Your task to perform on an android device: Go to Reddit.com Image 0: 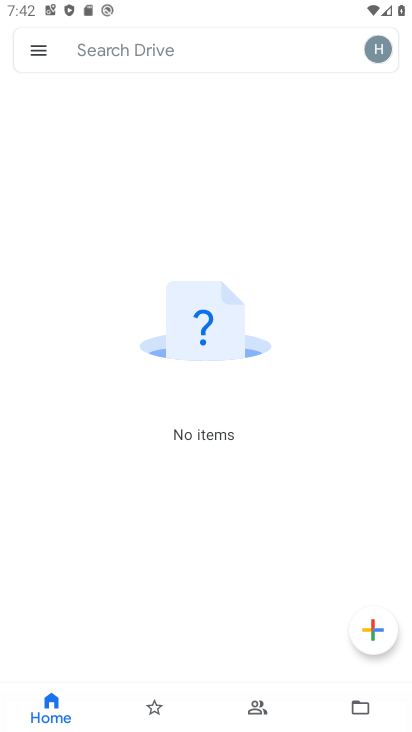
Step 0: press home button
Your task to perform on an android device: Go to Reddit.com Image 1: 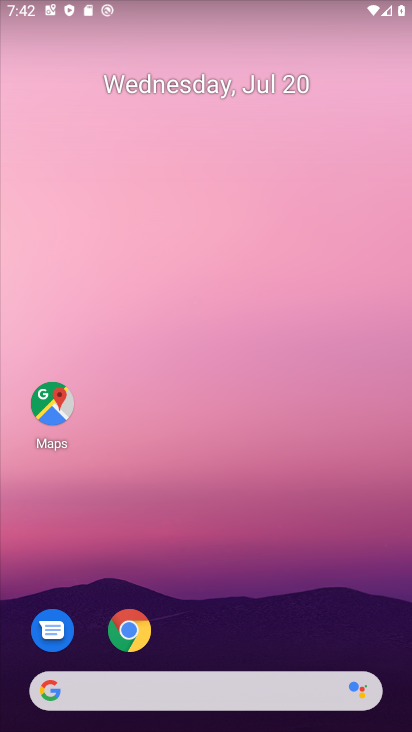
Step 1: drag from (266, 690) to (230, 253)
Your task to perform on an android device: Go to Reddit.com Image 2: 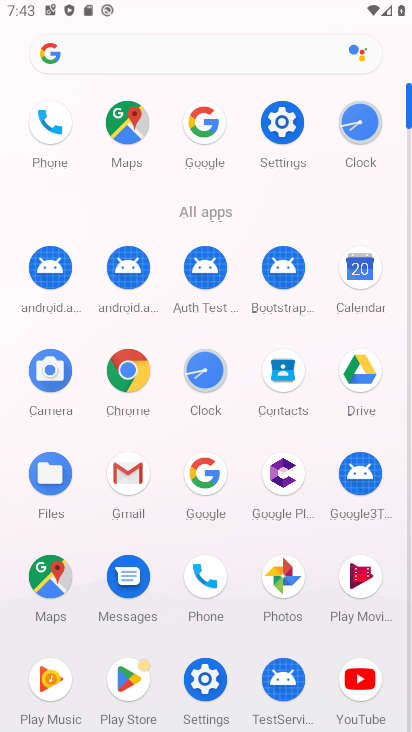
Step 2: click (139, 377)
Your task to perform on an android device: Go to Reddit.com Image 3: 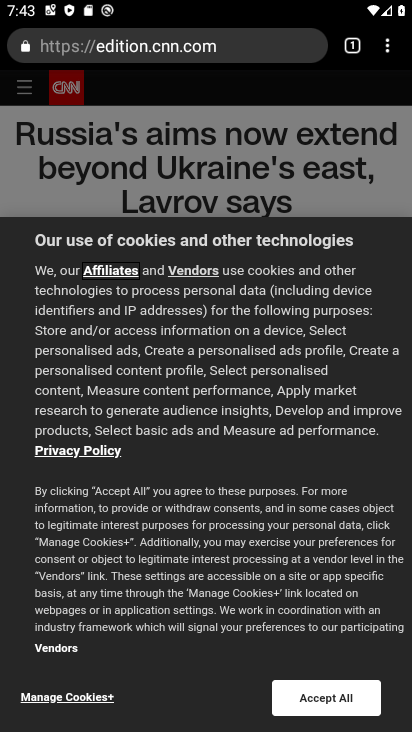
Step 3: click (157, 59)
Your task to perform on an android device: Go to Reddit.com Image 4: 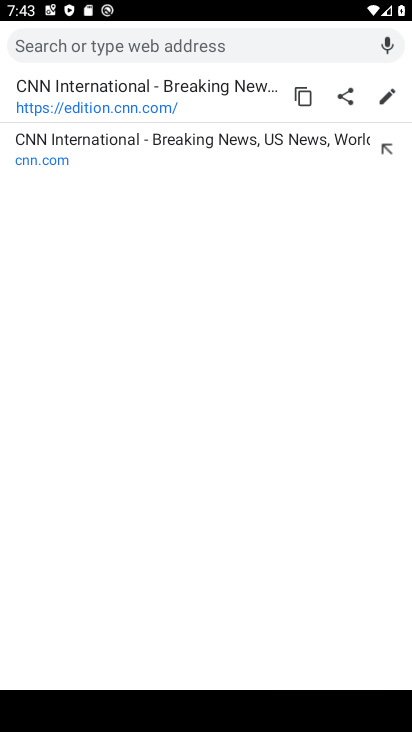
Step 4: type "reddit"
Your task to perform on an android device: Go to Reddit.com Image 5: 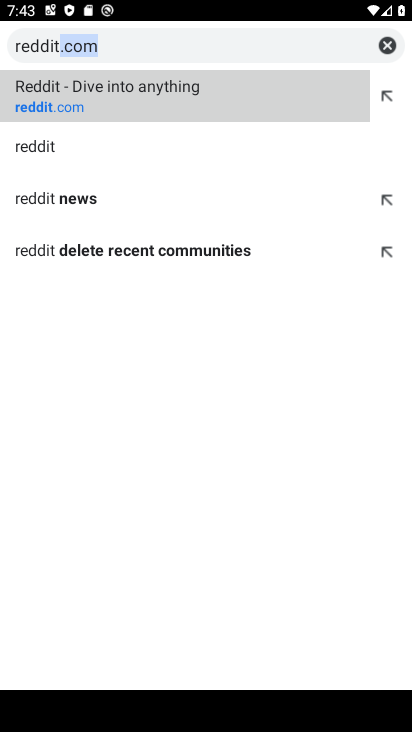
Step 5: click (112, 104)
Your task to perform on an android device: Go to Reddit.com Image 6: 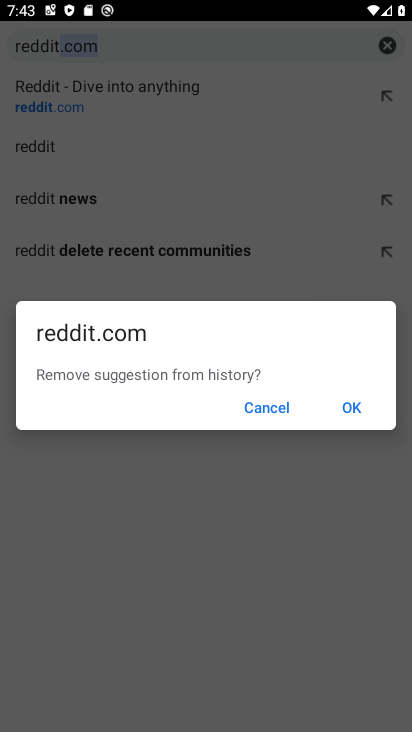
Step 6: click (349, 413)
Your task to perform on an android device: Go to Reddit.com Image 7: 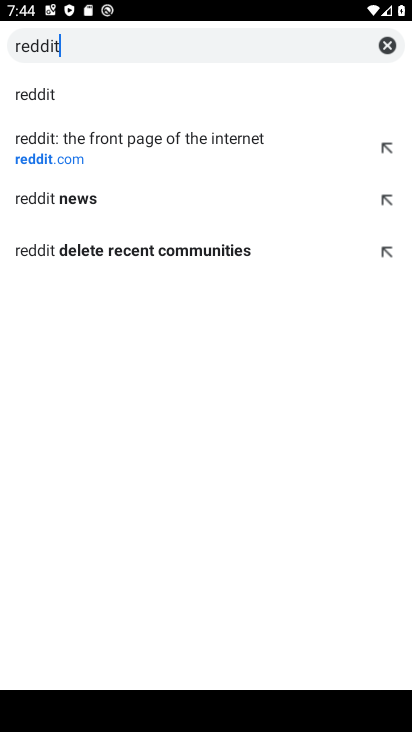
Step 7: click (134, 155)
Your task to perform on an android device: Go to Reddit.com Image 8: 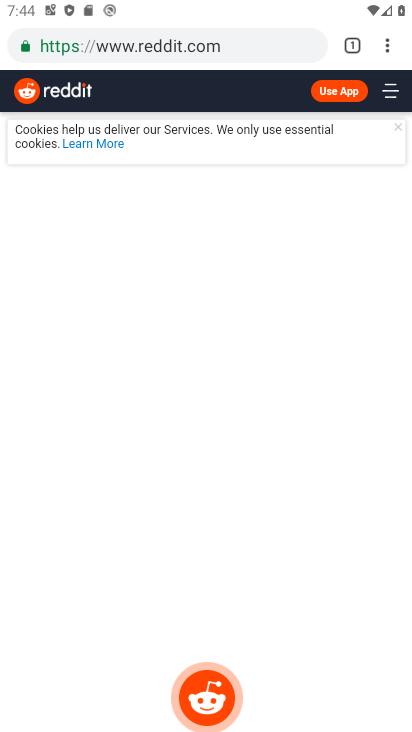
Step 8: task complete